Your task to perform on an android device: change the clock display to digital Image 0: 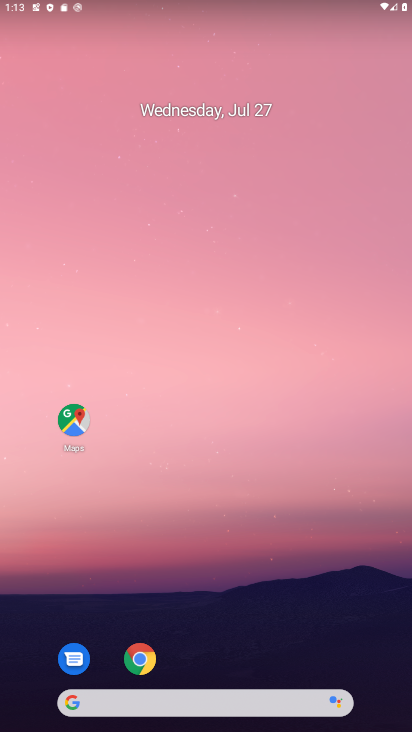
Step 0: drag from (247, 117) to (254, 80)
Your task to perform on an android device: change the clock display to digital Image 1: 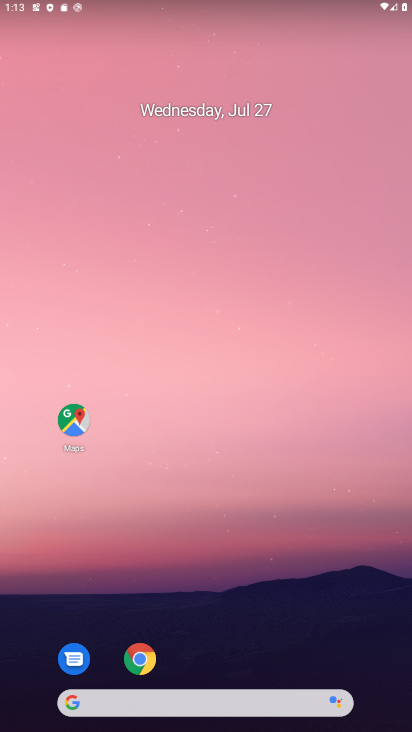
Step 1: drag from (341, 656) to (286, 33)
Your task to perform on an android device: change the clock display to digital Image 2: 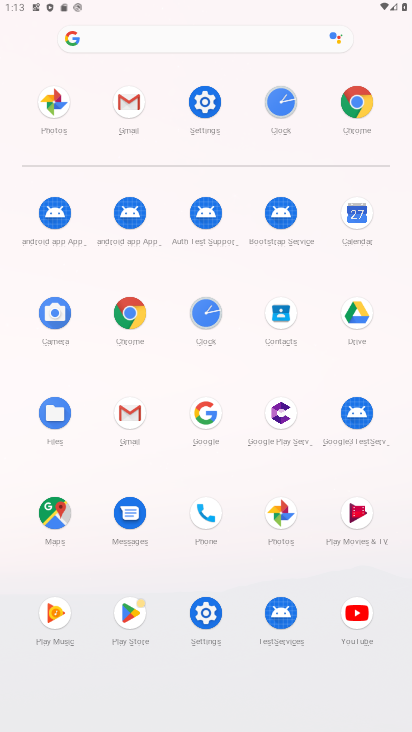
Step 2: click (201, 310)
Your task to perform on an android device: change the clock display to digital Image 3: 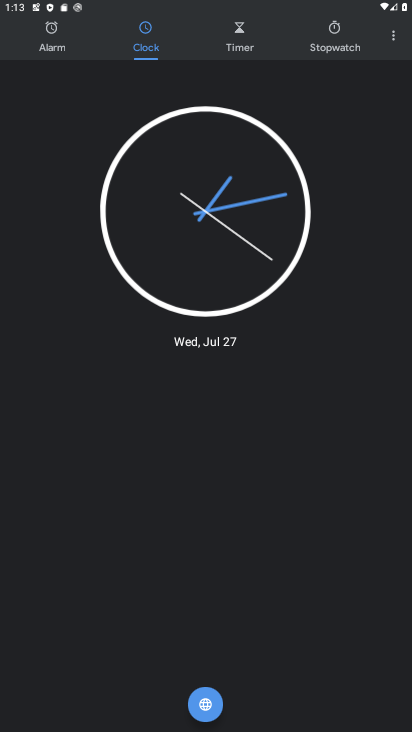
Step 3: click (392, 33)
Your task to perform on an android device: change the clock display to digital Image 4: 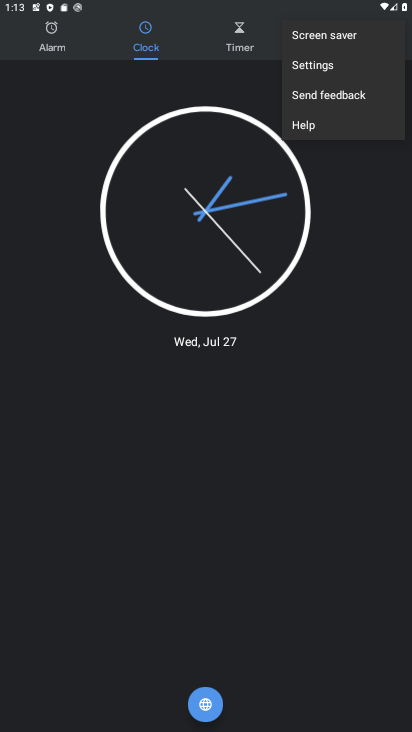
Step 4: click (312, 63)
Your task to perform on an android device: change the clock display to digital Image 5: 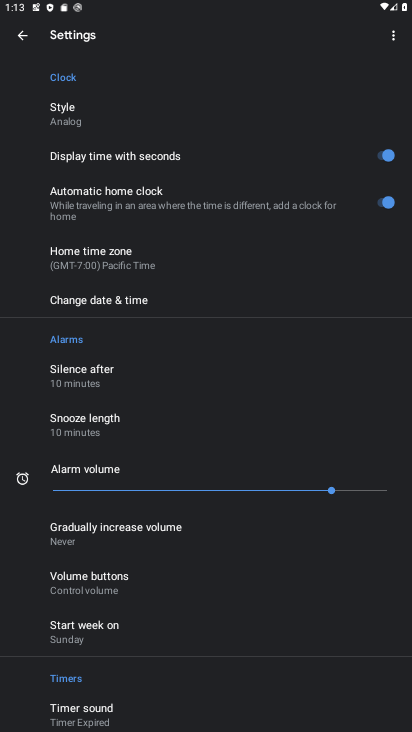
Step 5: click (77, 106)
Your task to perform on an android device: change the clock display to digital Image 6: 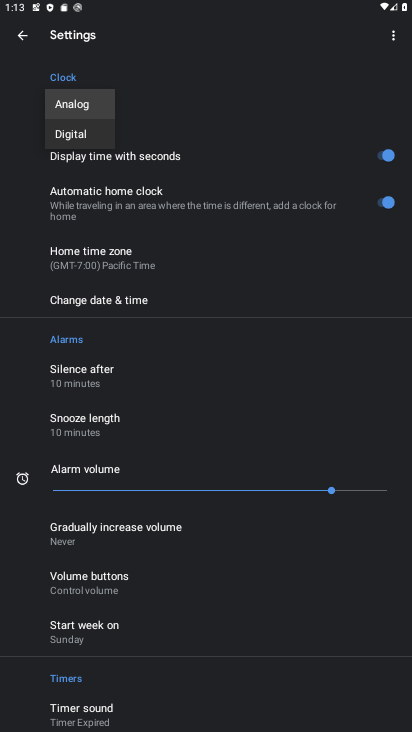
Step 6: click (76, 135)
Your task to perform on an android device: change the clock display to digital Image 7: 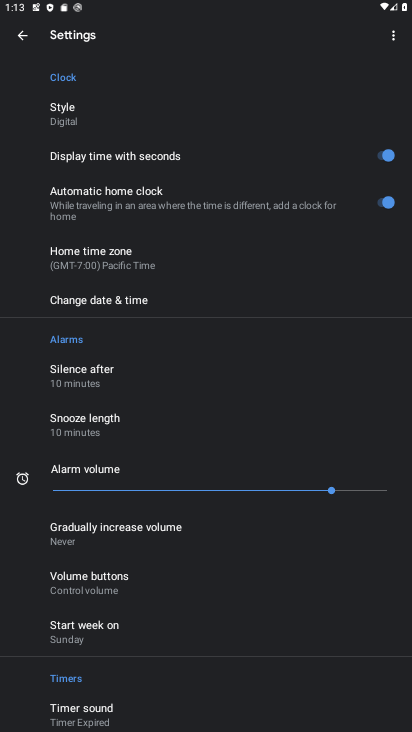
Step 7: task complete